Your task to perform on an android device: Open calendar and show me the third week of next month Image 0: 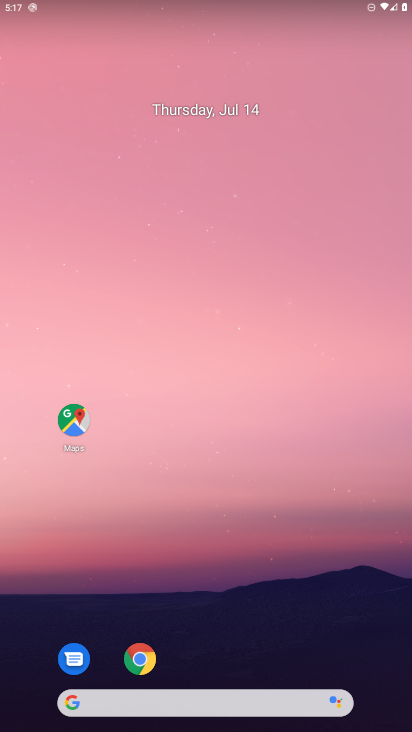
Step 0: press home button
Your task to perform on an android device: Open calendar and show me the third week of next month Image 1: 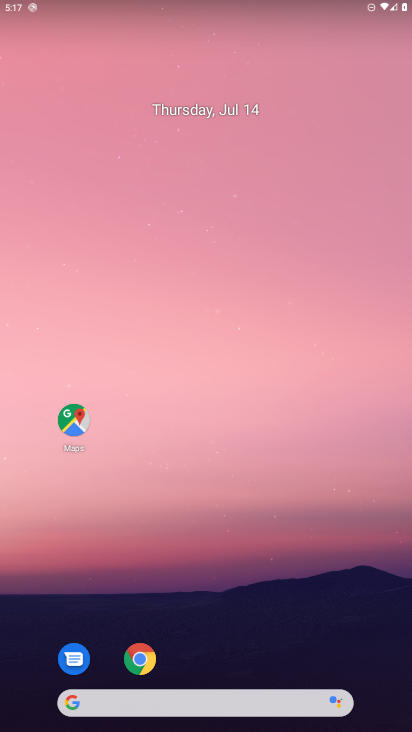
Step 1: drag from (234, 663) to (260, 87)
Your task to perform on an android device: Open calendar and show me the third week of next month Image 2: 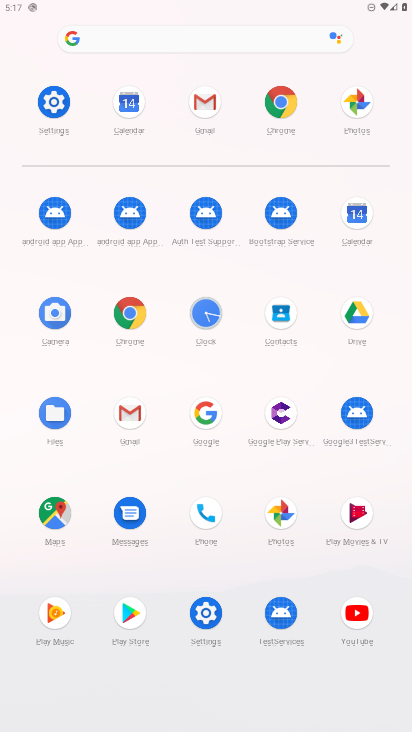
Step 2: click (355, 212)
Your task to perform on an android device: Open calendar and show me the third week of next month Image 3: 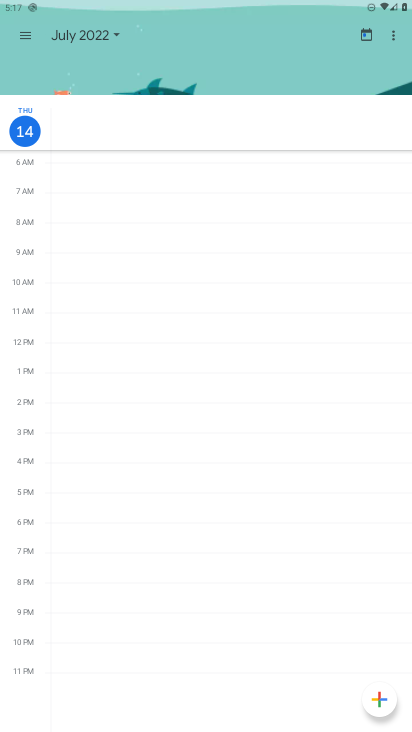
Step 3: click (20, 30)
Your task to perform on an android device: Open calendar and show me the third week of next month Image 4: 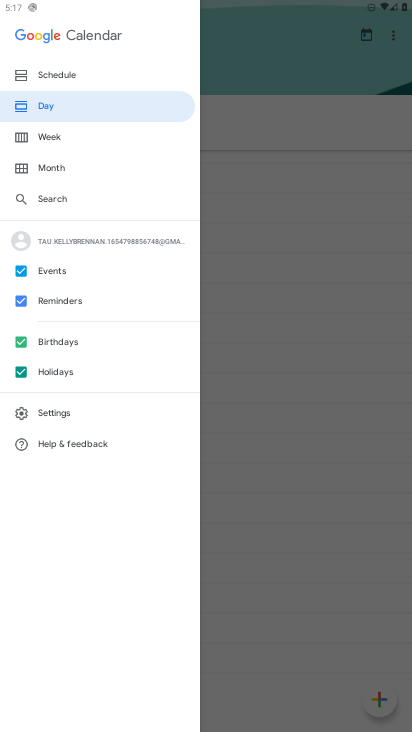
Step 4: click (53, 136)
Your task to perform on an android device: Open calendar and show me the third week of next month Image 5: 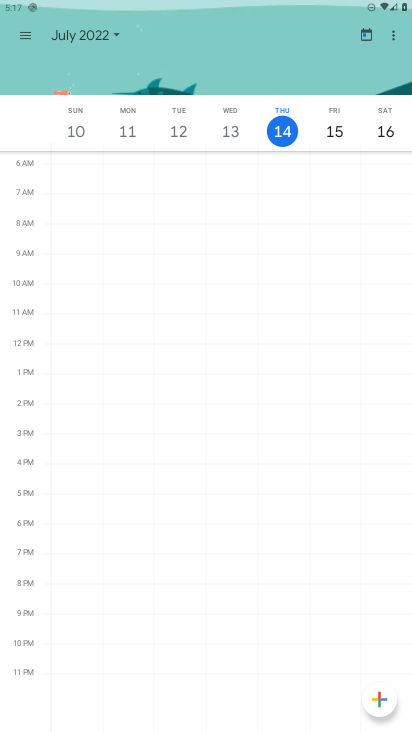
Step 5: drag from (378, 134) to (96, 123)
Your task to perform on an android device: Open calendar and show me the third week of next month Image 6: 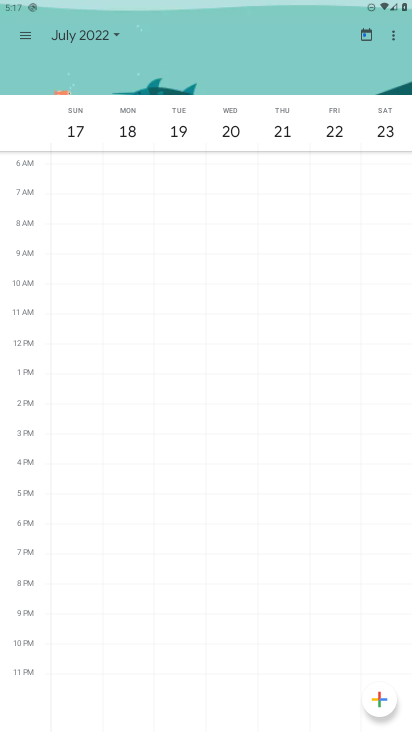
Step 6: drag from (380, 133) to (40, 126)
Your task to perform on an android device: Open calendar and show me the third week of next month Image 7: 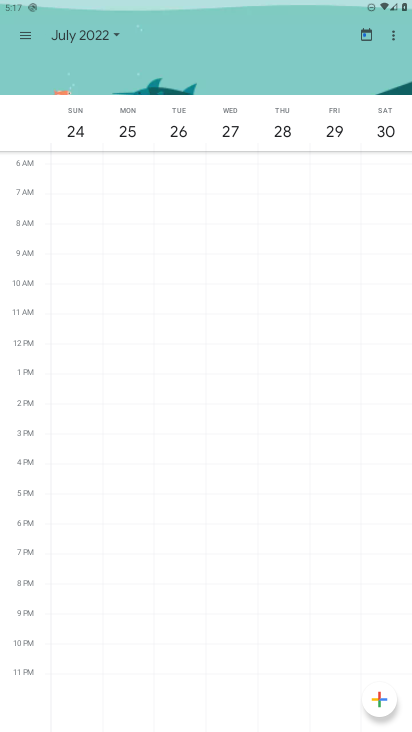
Step 7: drag from (380, 130) to (67, 130)
Your task to perform on an android device: Open calendar and show me the third week of next month Image 8: 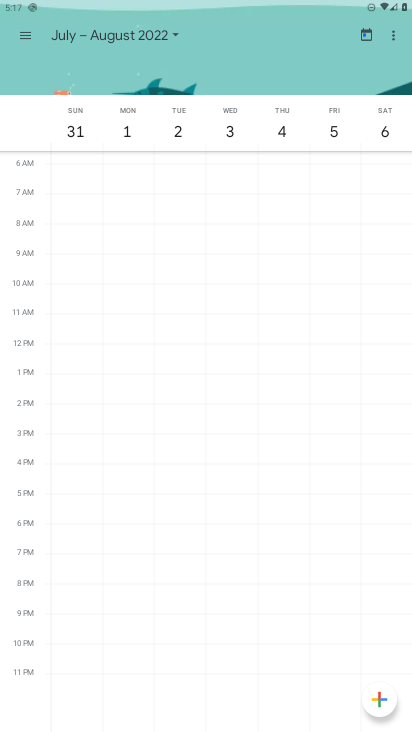
Step 8: drag from (369, 129) to (55, 130)
Your task to perform on an android device: Open calendar and show me the third week of next month Image 9: 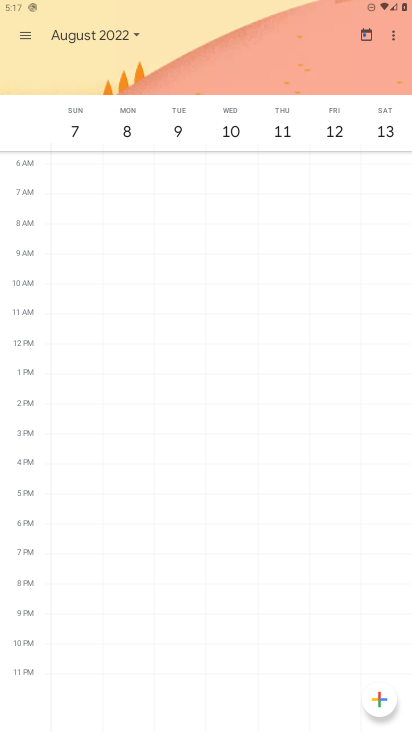
Step 9: drag from (394, 134) to (1, 134)
Your task to perform on an android device: Open calendar and show me the third week of next month Image 10: 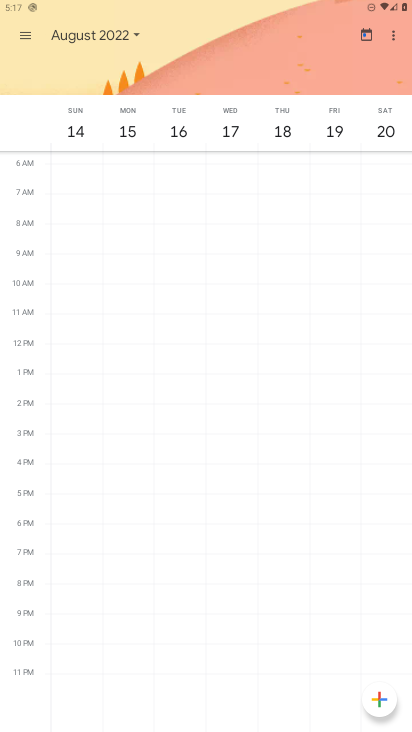
Step 10: click (77, 131)
Your task to perform on an android device: Open calendar and show me the third week of next month Image 11: 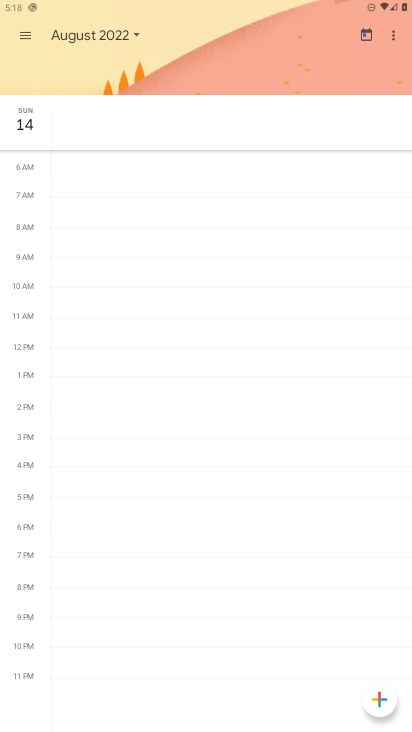
Step 11: task complete